Your task to perform on an android device: toggle translation in the chrome app Image 0: 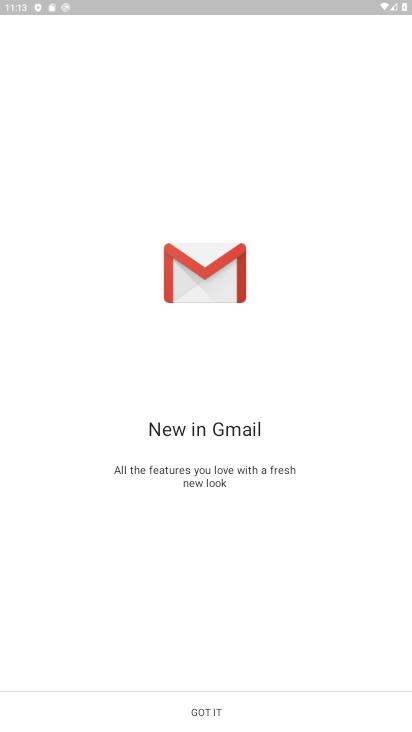
Step 0: press home button
Your task to perform on an android device: toggle translation in the chrome app Image 1: 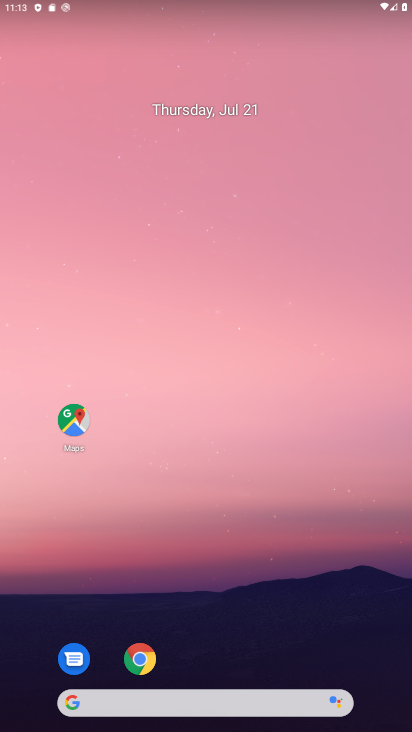
Step 1: click (148, 668)
Your task to perform on an android device: toggle translation in the chrome app Image 2: 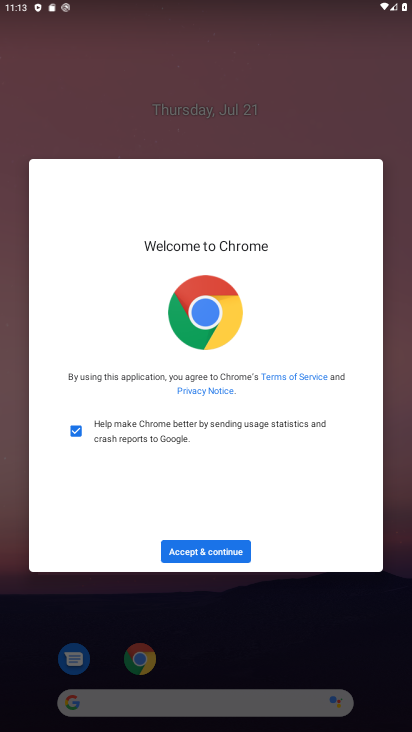
Step 2: click (218, 540)
Your task to perform on an android device: toggle translation in the chrome app Image 3: 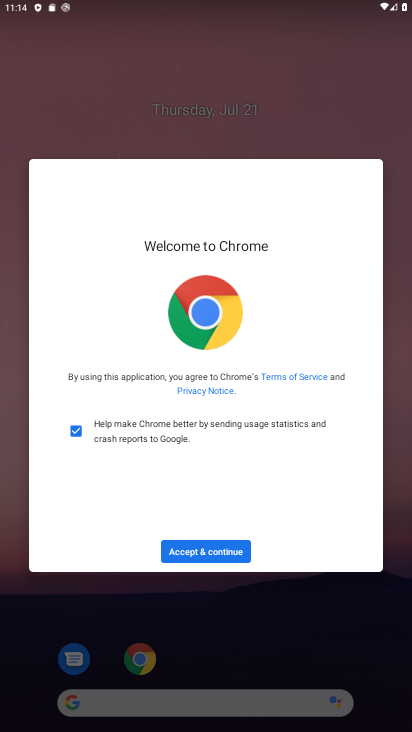
Step 3: click (218, 540)
Your task to perform on an android device: toggle translation in the chrome app Image 4: 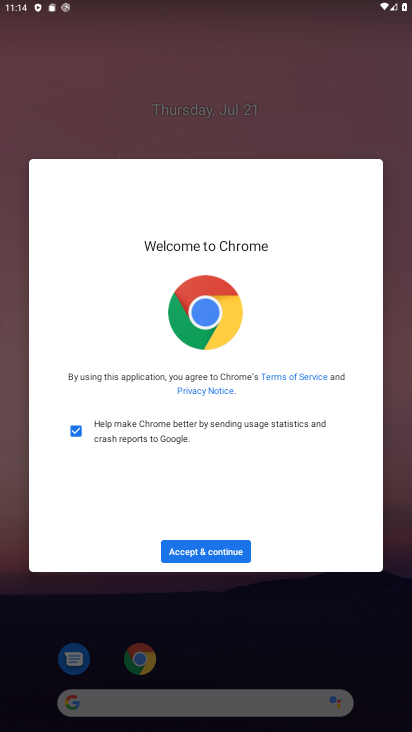
Step 4: click (218, 540)
Your task to perform on an android device: toggle translation in the chrome app Image 5: 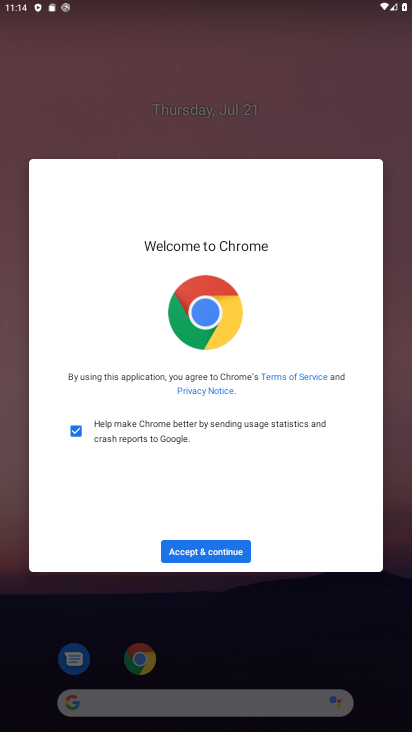
Step 5: click (218, 540)
Your task to perform on an android device: toggle translation in the chrome app Image 6: 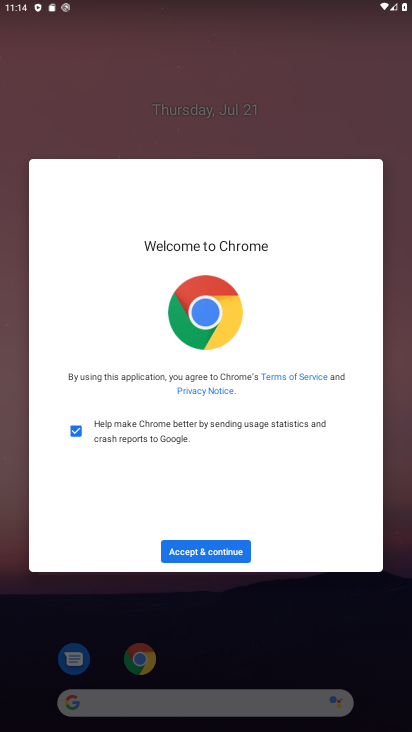
Step 6: click (218, 540)
Your task to perform on an android device: toggle translation in the chrome app Image 7: 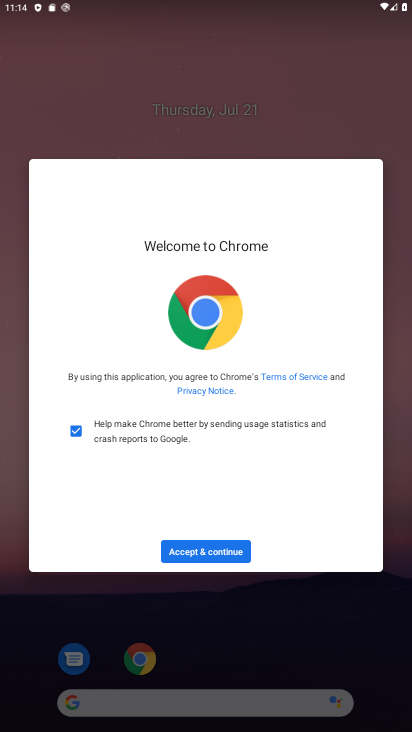
Step 7: click (218, 540)
Your task to perform on an android device: toggle translation in the chrome app Image 8: 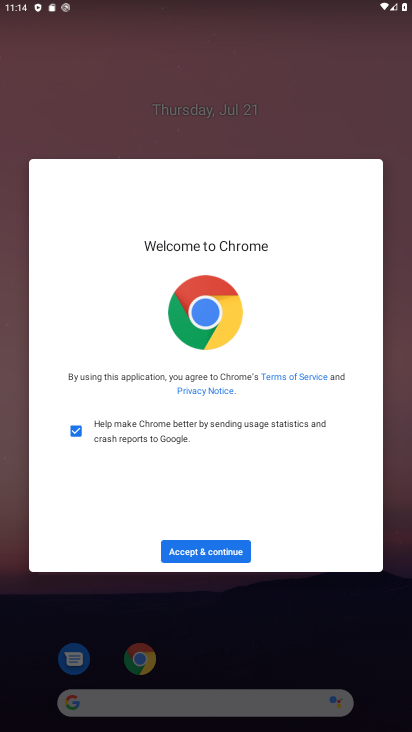
Step 8: click (218, 540)
Your task to perform on an android device: toggle translation in the chrome app Image 9: 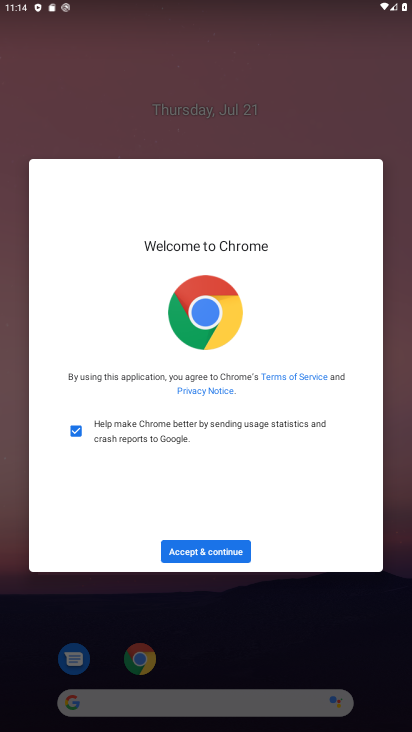
Step 9: click (218, 540)
Your task to perform on an android device: toggle translation in the chrome app Image 10: 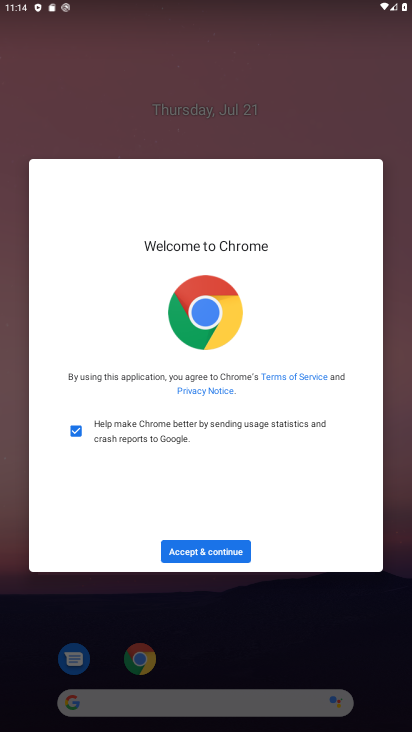
Step 10: click (216, 546)
Your task to perform on an android device: toggle translation in the chrome app Image 11: 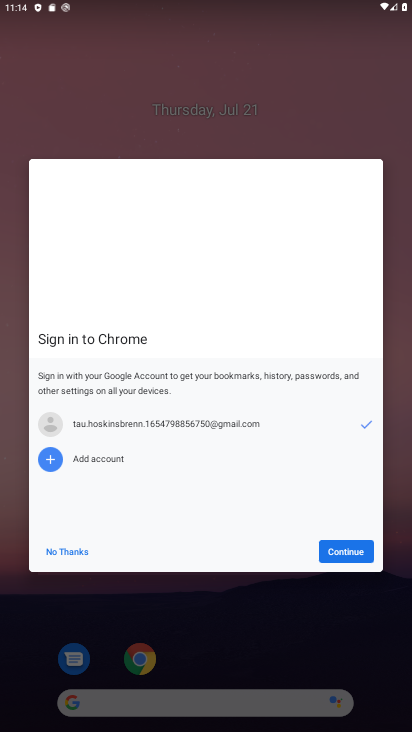
Step 11: click (216, 546)
Your task to perform on an android device: toggle translation in the chrome app Image 12: 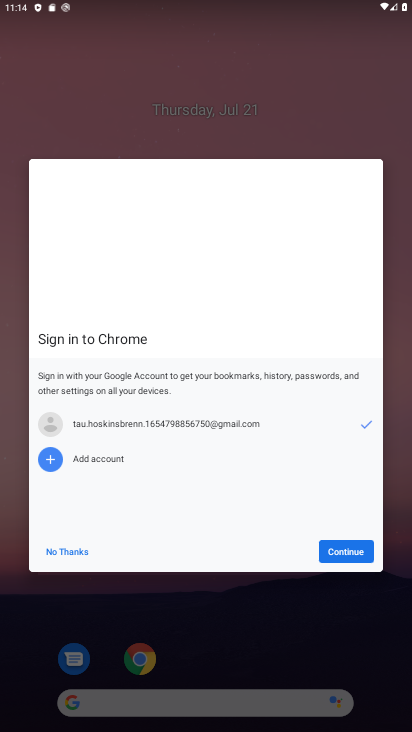
Step 12: click (336, 545)
Your task to perform on an android device: toggle translation in the chrome app Image 13: 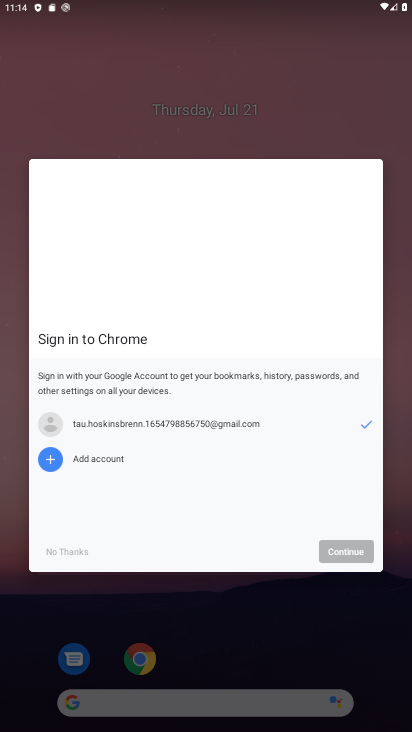
Step 13: click (336, 545)
Your task to perform on an android device: toggle translation in the chrome app Image 14: 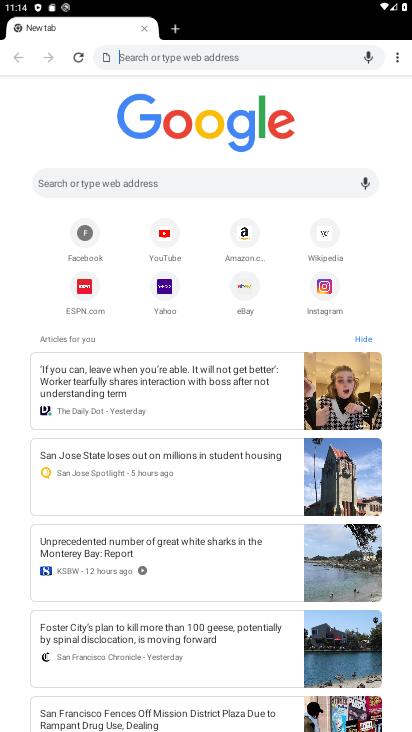
Step 14: click (400, 56)
Your task to perform on an android device: toggle translation in the chrome app Image 15: 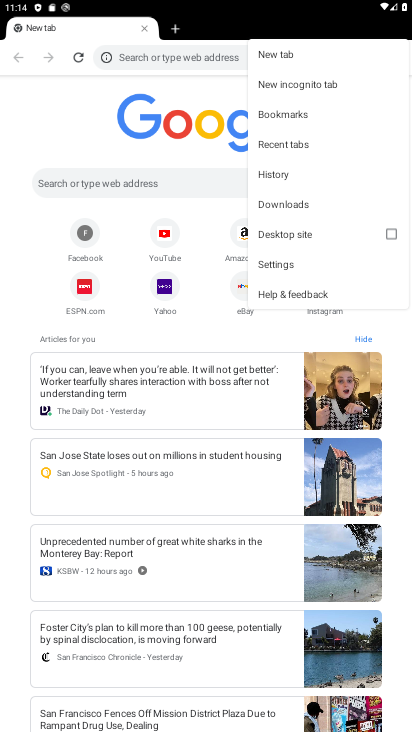
Step 15: click (305, 262)
Your task to perform on an android device: toggle translation in the chrome app Image 16: 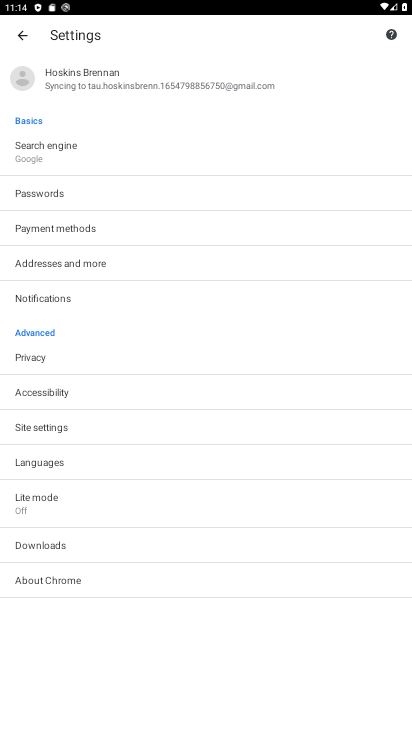
Step 16: click (95, 452)
Your task to perform on an android device: toggle translation in the chrome app Image 17: 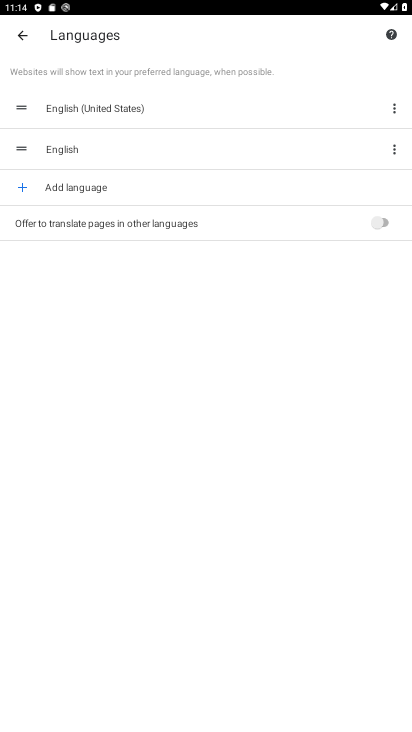
Step 17: click (388, 220)
Your task to perform on an android device: toggle translation in the chrome app Image 18: 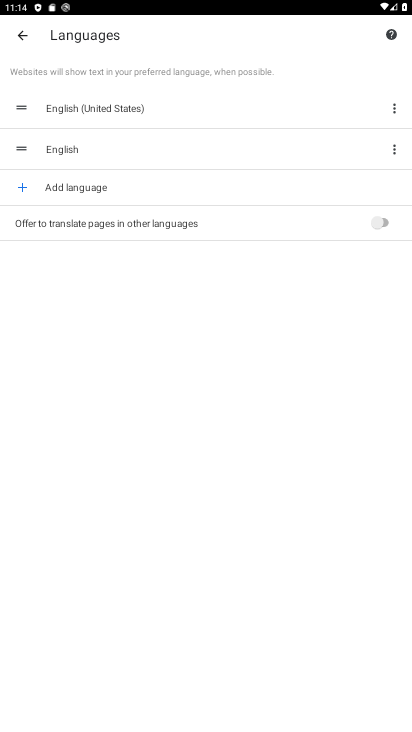
Step 18: click (388, 220)
Your task to perform on an android device: toggle translation in the chrome app Image 19: 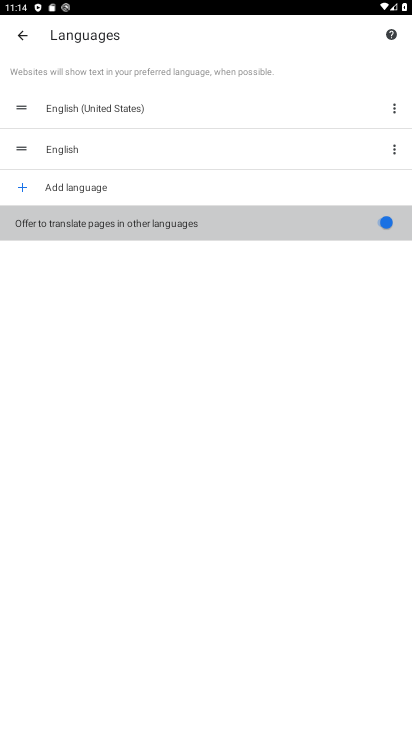
Step 19: click (388, 220)
Your task to perform on an android device: toggle translation in the chrome app Image 20: 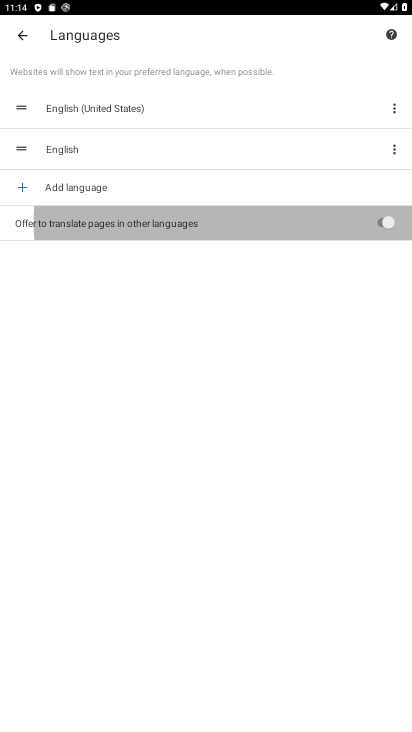
Step 20: click (388, 220)
Your task to perform on an android device: toggle translation in the chrome app Image 21: 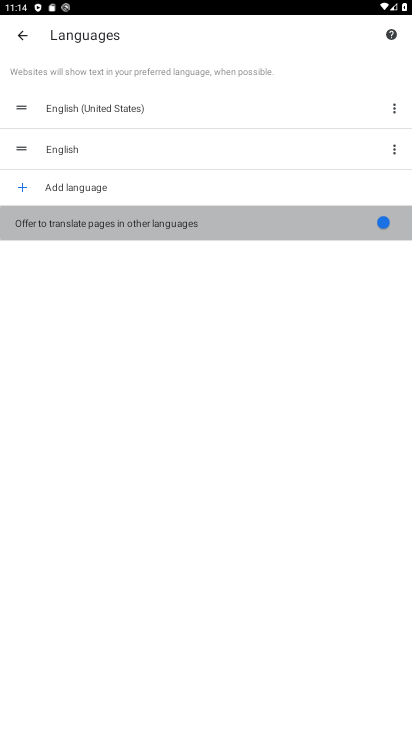
Step 21: click (388, 220)
Your task to perform on an android device: toggle translation in the chrome app Image 22: 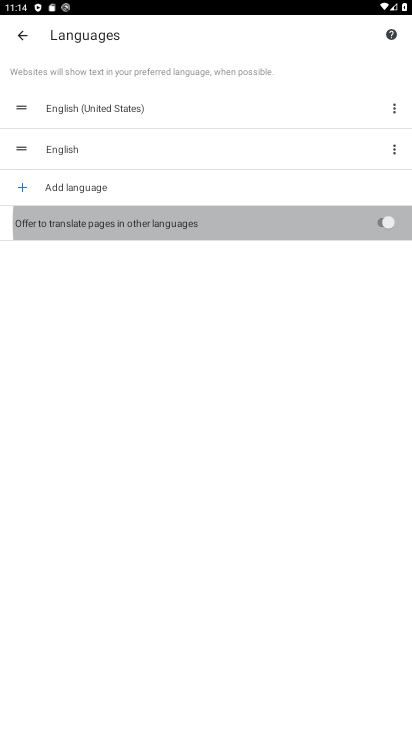
Step 22: click (388, 220)
Your task to perform on an android device: toggle translation in the chrome app Image 23: 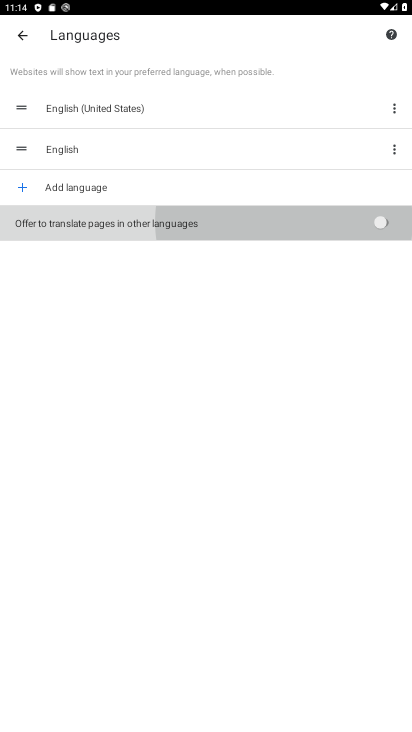
Step 23: click (388, 220)
Your task to perform on an android device: toggle translation in the chrome app Image 24: 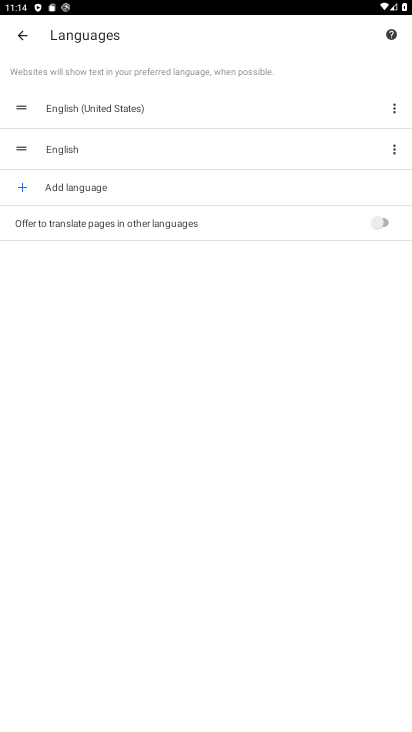
Step 24: task complete